Your task to perform on an android device: turn vacation reply on in the gmail app Image 0: 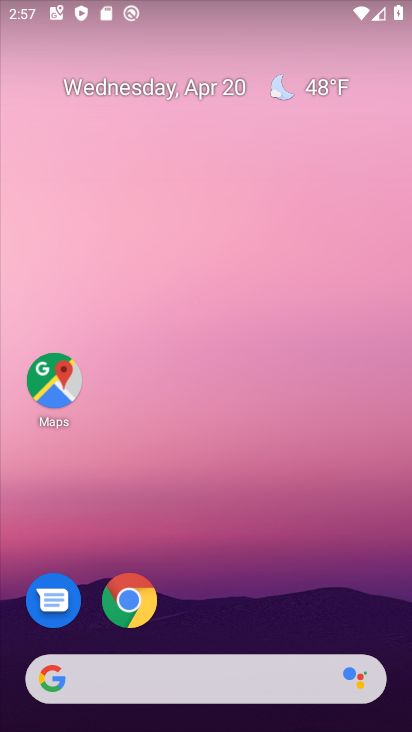
Step 0: drag from (321, 535) to (262, 3)
Your task to perform on an android device: turn vacation reply on in the gmail app Image 1: 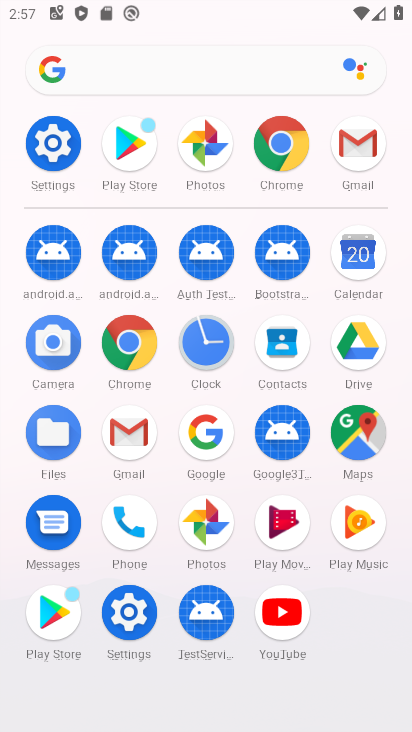
Step 1: click (344, 139)
Your task to perform on an android device: turn vacation reply on in the gmail app Image 2: 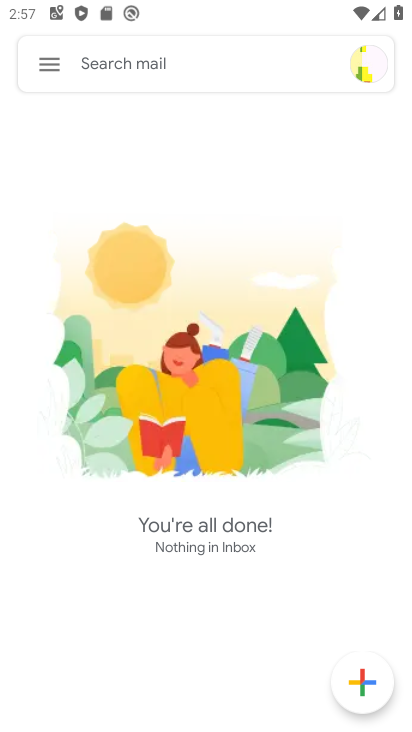
Step 2: click (47, 73)
Your task to perform on an android device: turn vacation reply on in the gmail app Image 3: 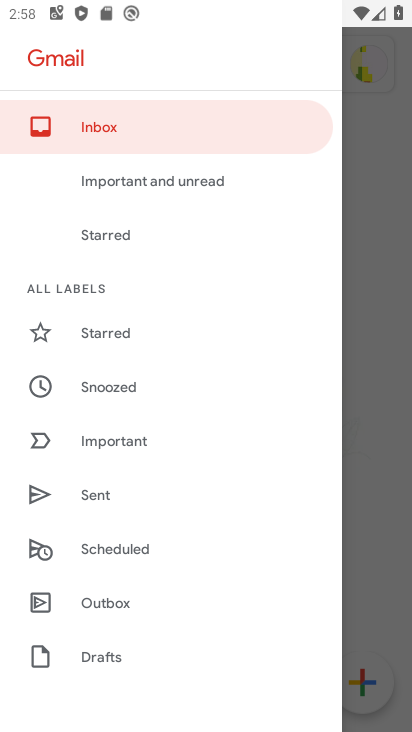
Step 3: drag from (154, 550) to (228, 184)
Your task to perform on an android device: turn vacation reply on in the gmail app Image 4: 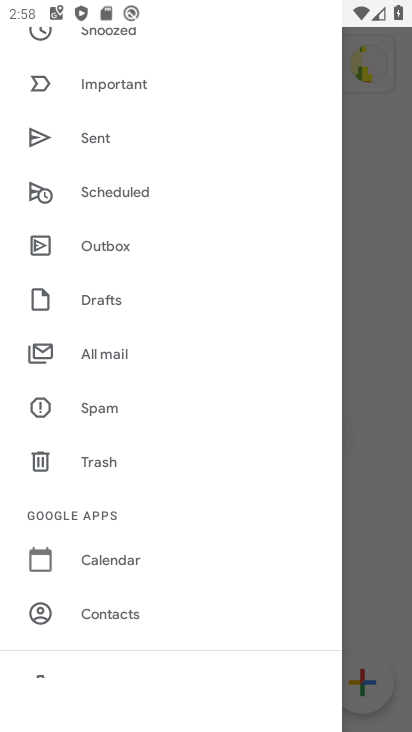
Step 4: drag from (117, 592) to (187, 193)
Your task to perform on an android device: turn vacation reply on in the gmail app Image 5: 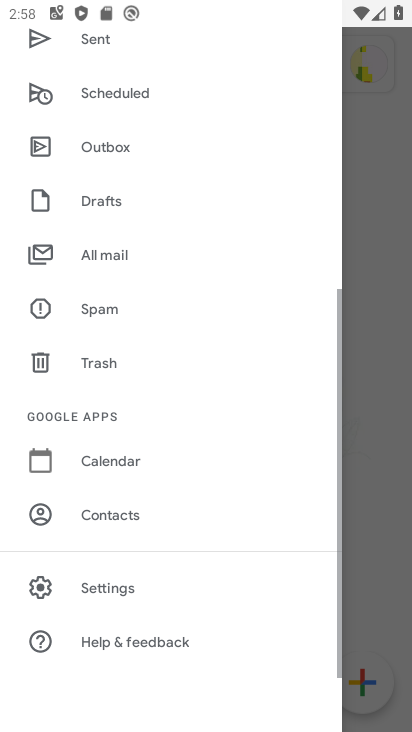
Step 5: click (90, 597)
Your task to perform on an android device: turn vacation reply on in the gmail app Image 6: 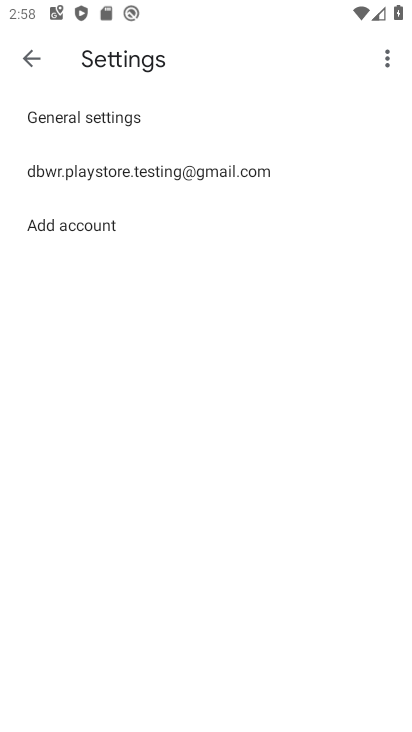
Step 6: click (156, 167)
Your task to perform on an android device: turn vacation reply on in the gmail app Image 7: 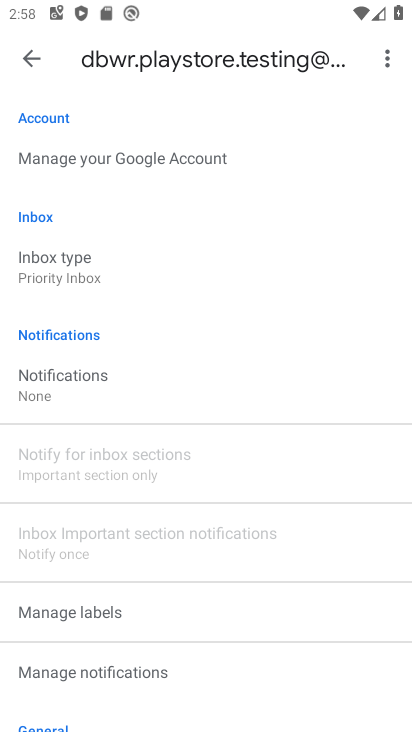
Step 7: drag from (181, 473) to (187, 145)
Your task to perform on an android device: turn vacation reply on in the gmail app Image 8: 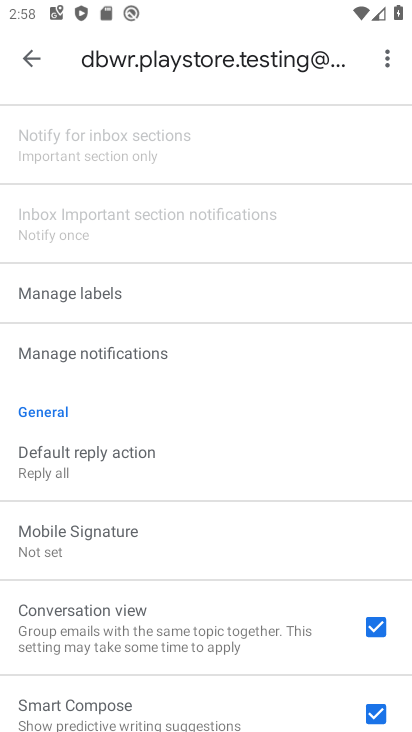
Step 8: drag from (244, 569) to (300, 184)
Your task to perform on an android device: turn vacation reply on in the gmail app Image 9: 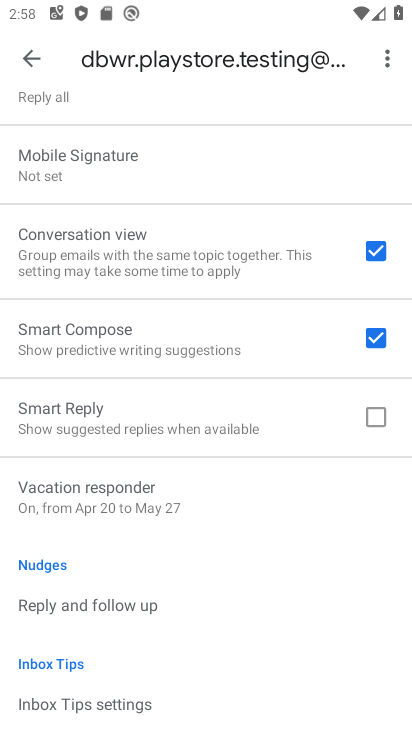
Step 9: drag from (246, 587) to (292, 244)
Your task to perform on an android device: turn vacation reply on in the gmail app Image 10: 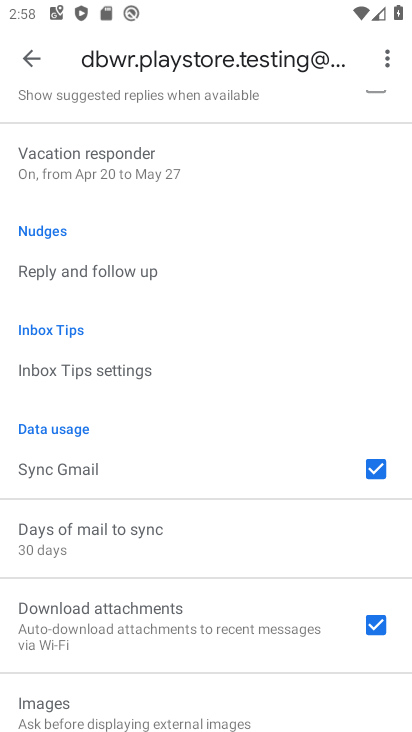
Step 10: drag from (149, 582) to (219, 221)
Your task to perform on an android device: turn vacation reply on in the gmail app Image 11: 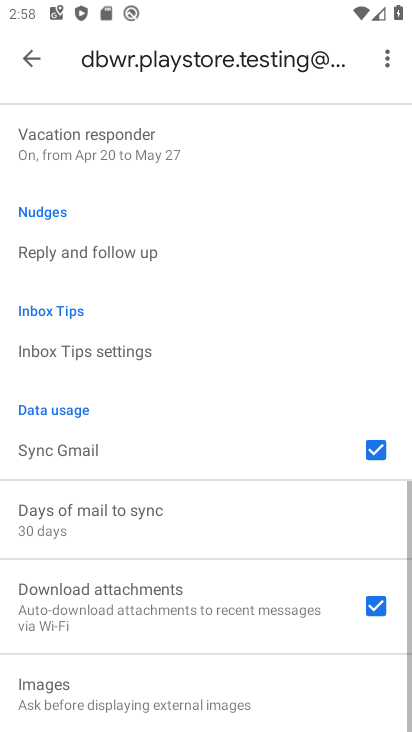
Step 11: drag from (224, 237) to (162, 588)
Your task to perform on an android device: turn vacation reply on in the gmail app Image 12: 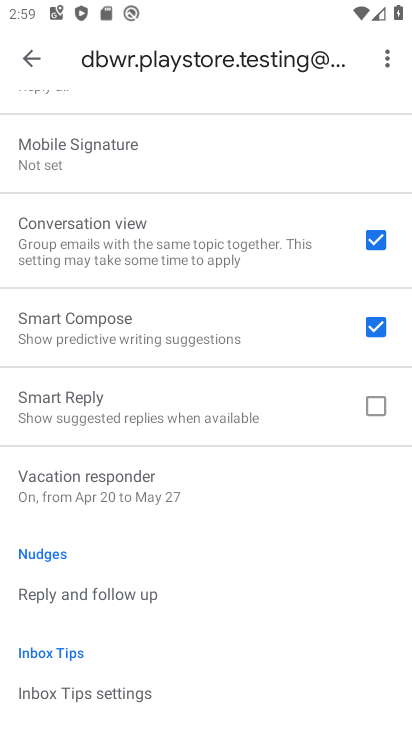
Step 12: click (121, 499)
Your task to perform on an android device: turn vacation reply on in the gmail app Image 13: 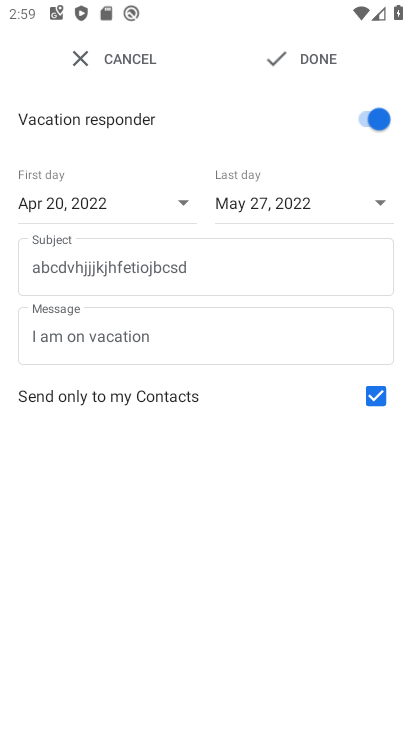
Step 13: task complete